Your task to perform on an android device: What is the news today? Image 0: 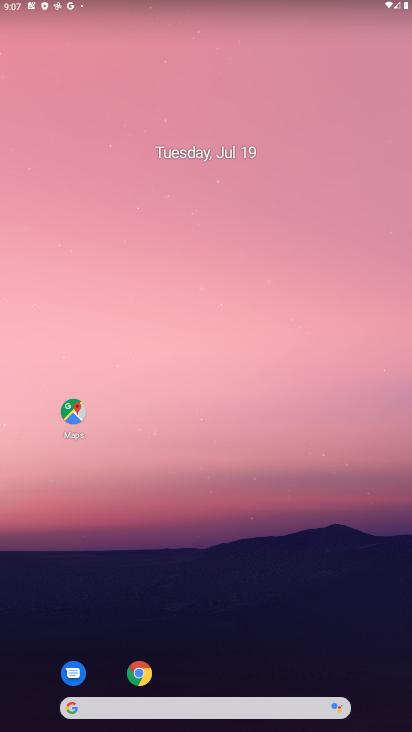
Step 0: click (226, 716)
Your task to perform on an android device: What is the news today? Image 1: 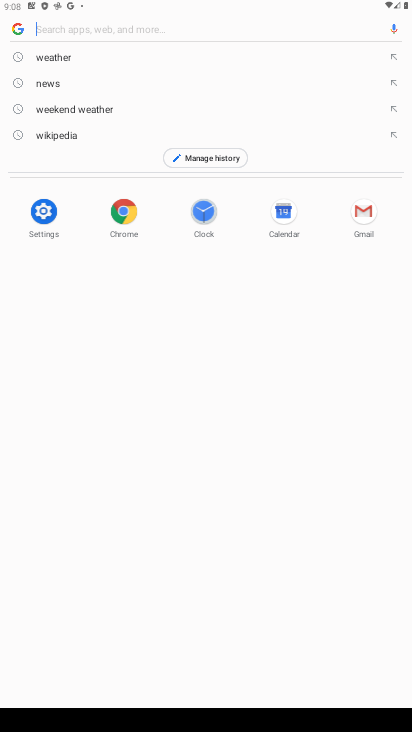
Step 1: click (86, 54)
Your task to perform on an android device: What is the news today? Image 2: 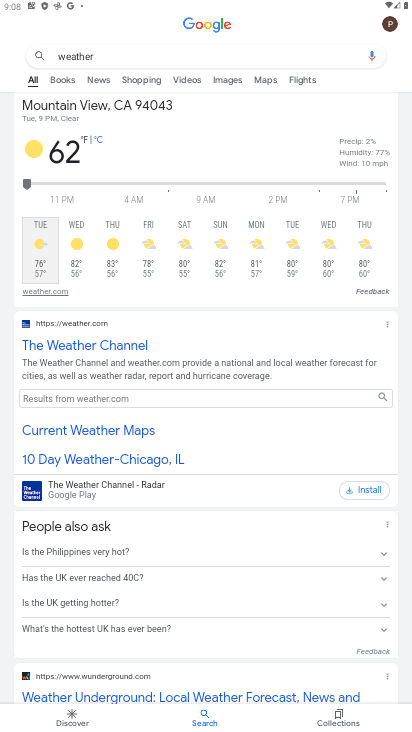
Step 2: task complete